Your task to perform on an android device: Open the Play Movies app and select the watchlist tab. Image 0: 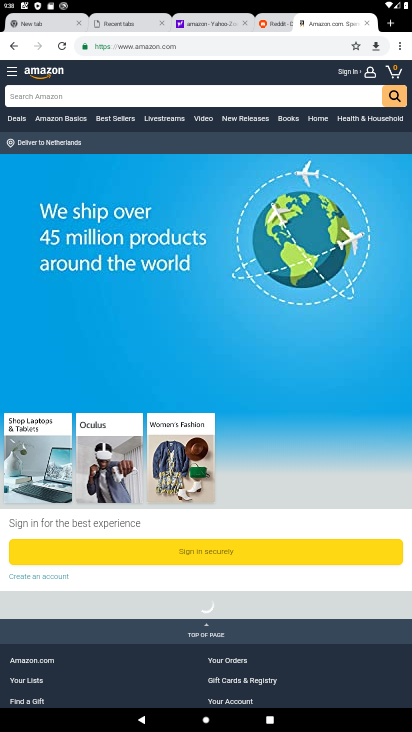
Step 0: press home button
Your task to perform on an android device: Open the Play Movies app and select the watchlist tab. Image 1: 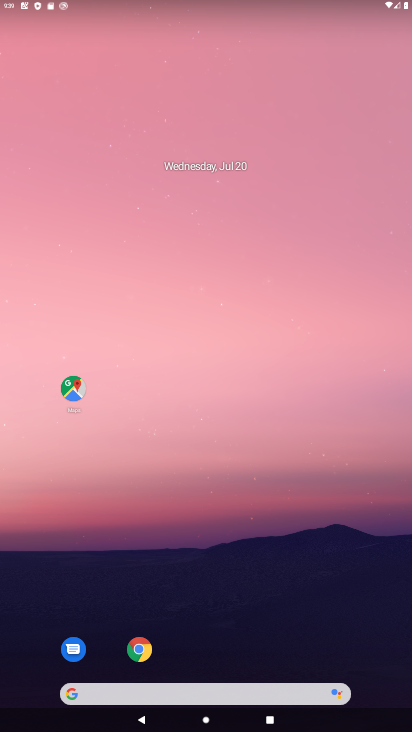
Step 1: drag from (226, 663) to (305, 77)
Your task to perform on an android device: Open the Play Movies app and select the watchlist tab. Image 2: 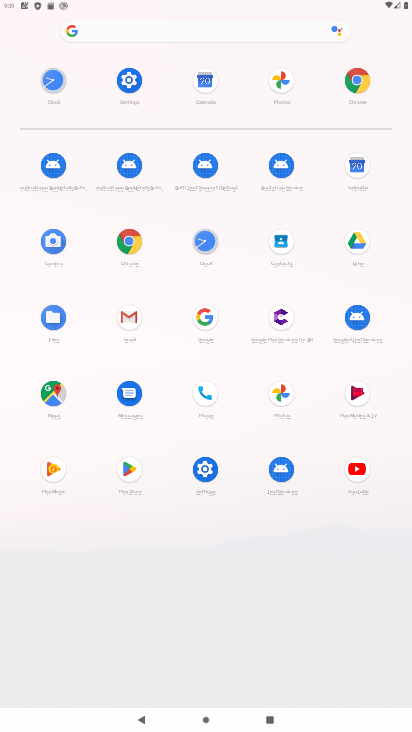
Step 2: click (351, 415)
Your task to perform on an android device: Open the Play Movies app and select the watchlist tab. Image 3: 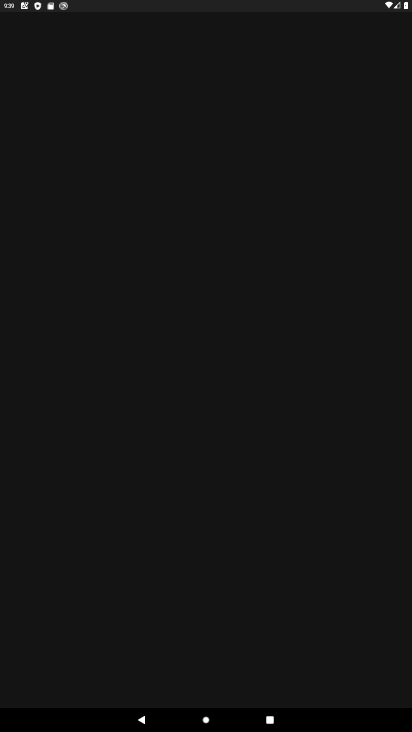
Step 3: task complete